Your task to perform on an android device: change the clock style Image 0: 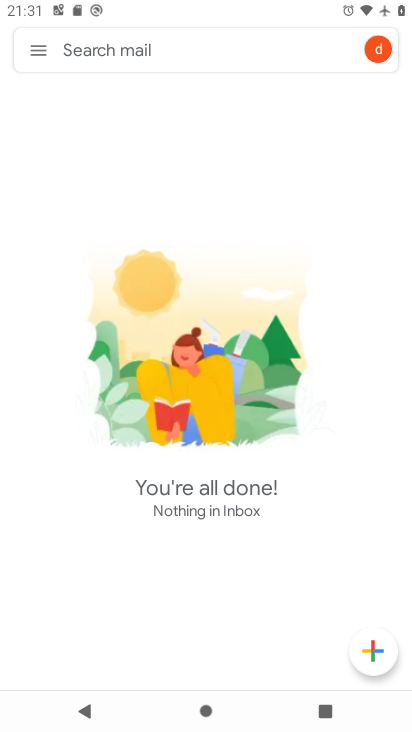
Step 0: press home button
Your task to perform on an android device: change the clock style Image 1: 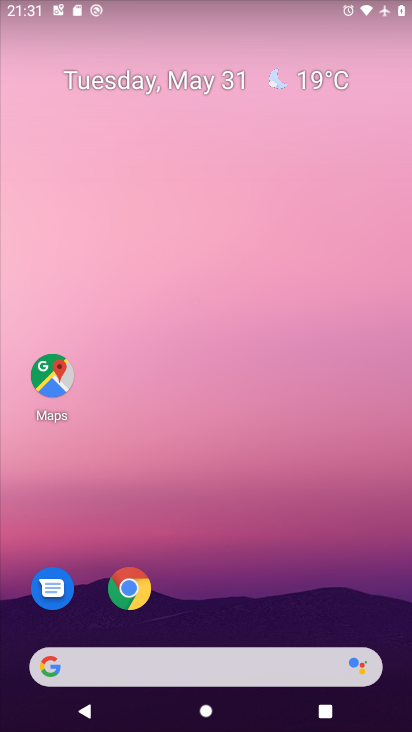
Step 1: drag from (171, 666) to (300, 68)
Your task to perform on an android device: change the clock style Image 2: 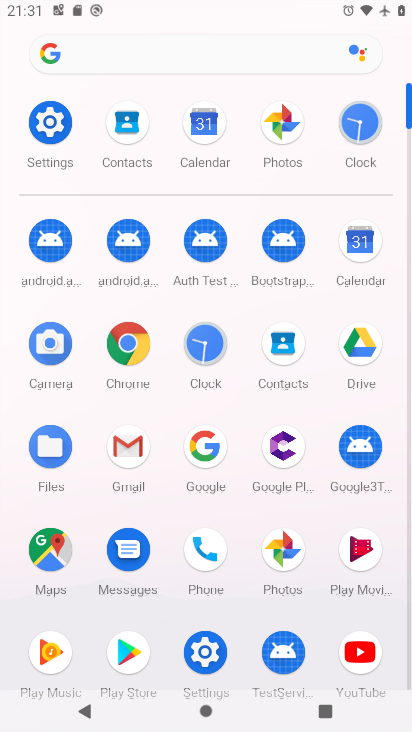
Step 2: click (204, 350)
Your task to perform on an android device: change the clock style Image 3: 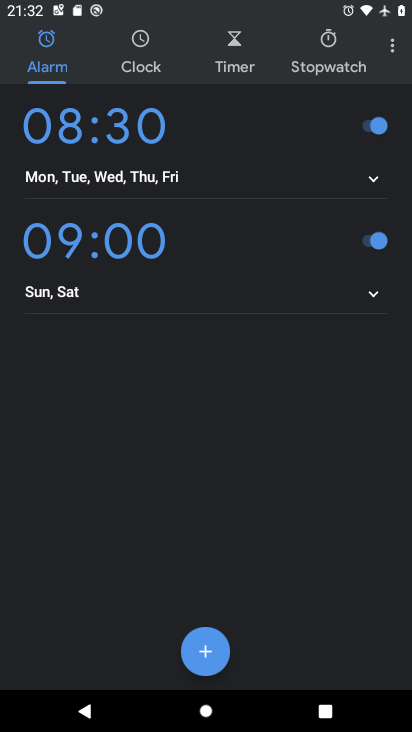
Step 3: click (390, 42)
Your task to perform on an android device: change the clock style Image 4: 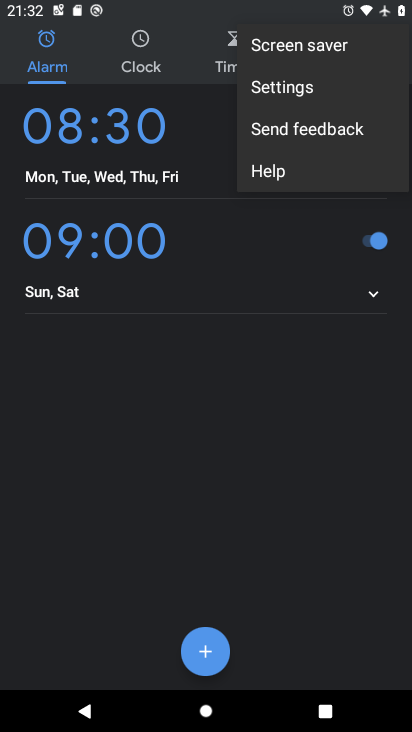
Step 4: click (281, 90)
Your task to perform on an android device: change the clock style Image 5: 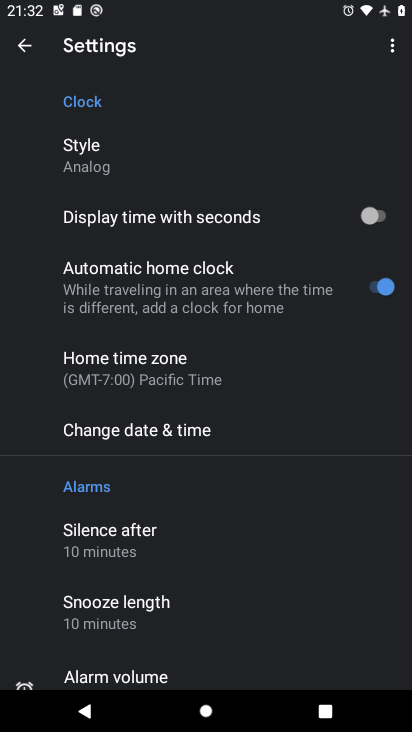
Step 5: click (100, 164)
Your task to perform on an android device: change the clock style Image 6: 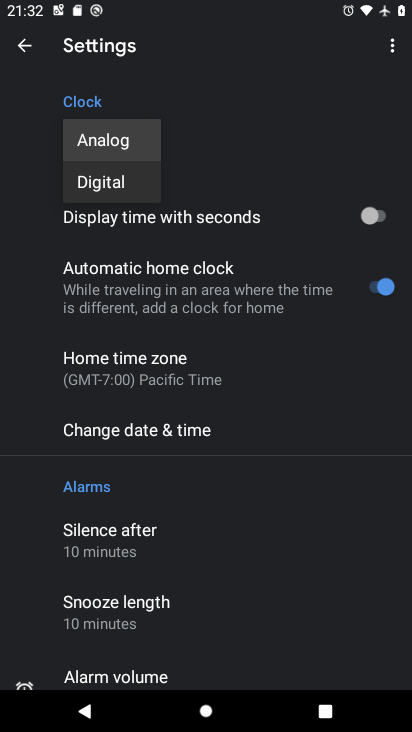
Step 6: click (113, 180)
Your task to perform on an android device: change the clock style Image 7: 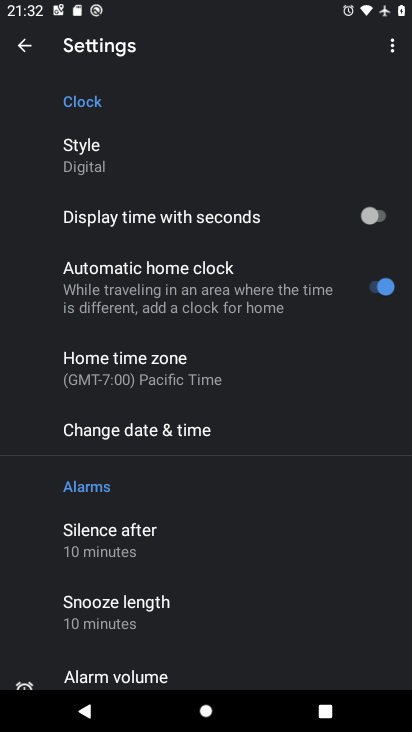
Step 7: task complete